Your task to perform on an android device: Open the Play Movies app and select the watchlist tab. Image 0: 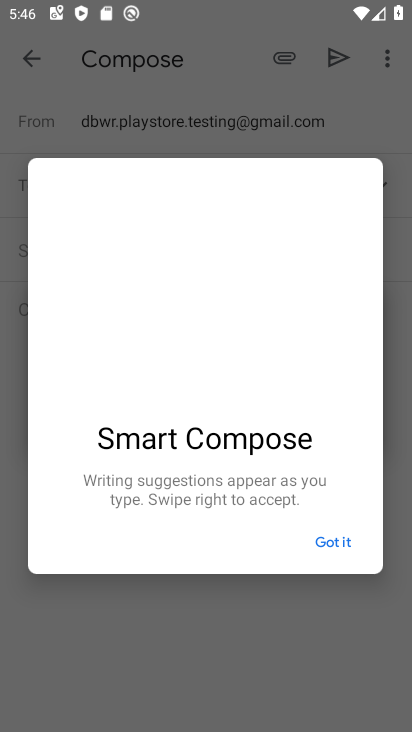
Step 0: click (348, 540)
Your task to perform on an android device: Open the Play Movies app and select the watchlist tab. Image 1: 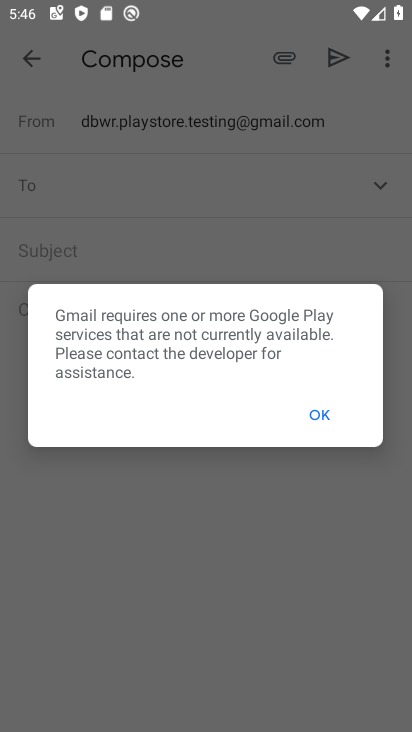
Step 1: press home button
Your task to perform on an android device: Open the Play Movies app and select the watchlist tab. Image 2: 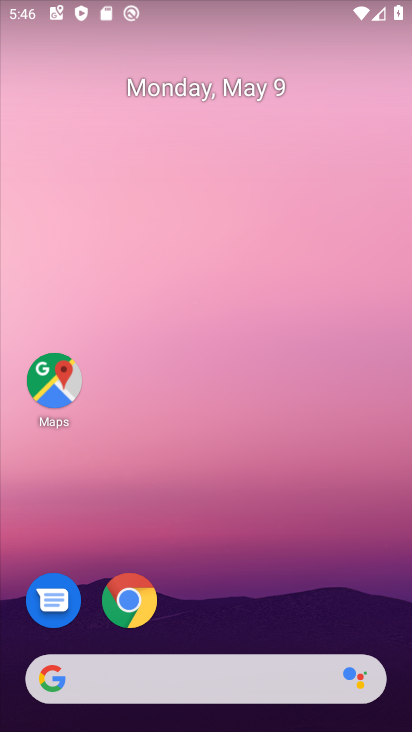
Step 2: drag from (209, 644) to (242, 125)
Your task to perform on an android device: Open the Play Movies app and select the watchlist tab. Image 3: 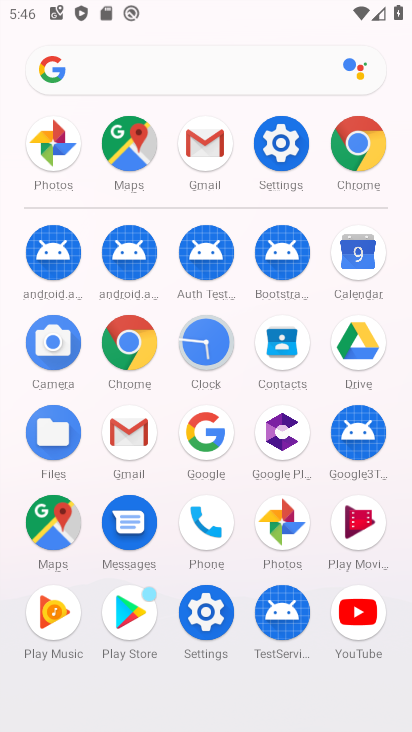
Step 3: click (369, 529)
Your task to perform on an android device: Open the Play Movies app and select the watchlist tab. Image 4: 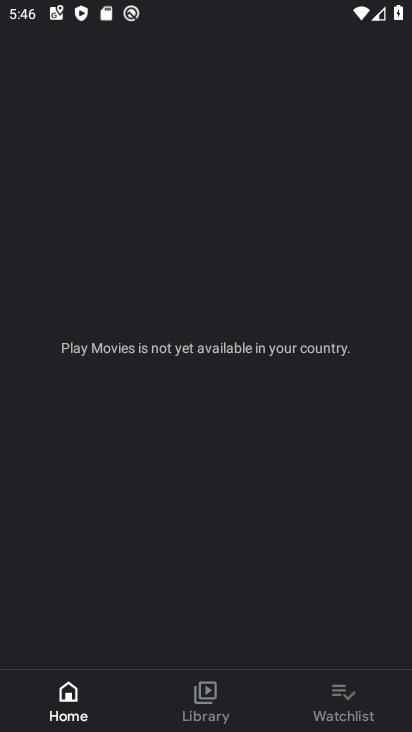
Step 4: click (329, 693)
Your task to perform on an android device: Open the Play Movies app and select the watchlist tab. Image 5: 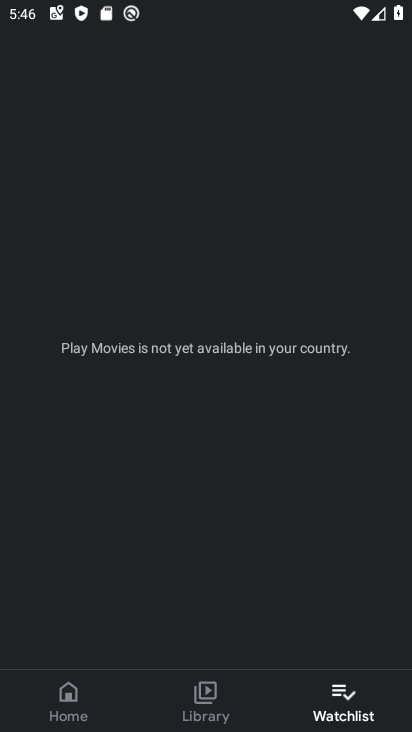
Step 5: task complete